Your task to perform on an android device: turn off notifications settings in the gmail app Image 0: 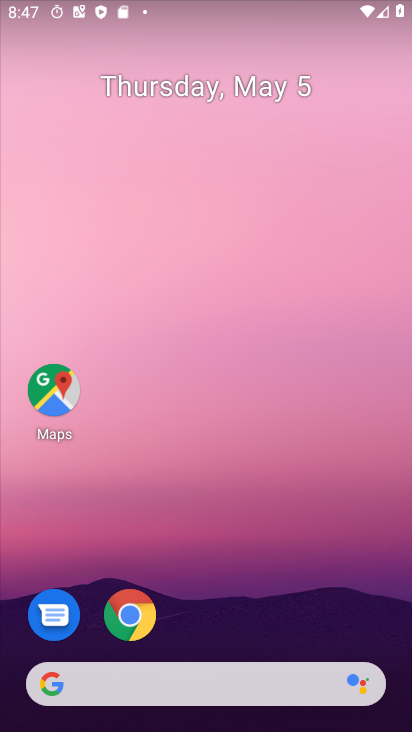
Step 0: drag from (228, 600) to (285, 199)
Your task to perform on an android device: turn off notifications settings in the gmail app Image 1: 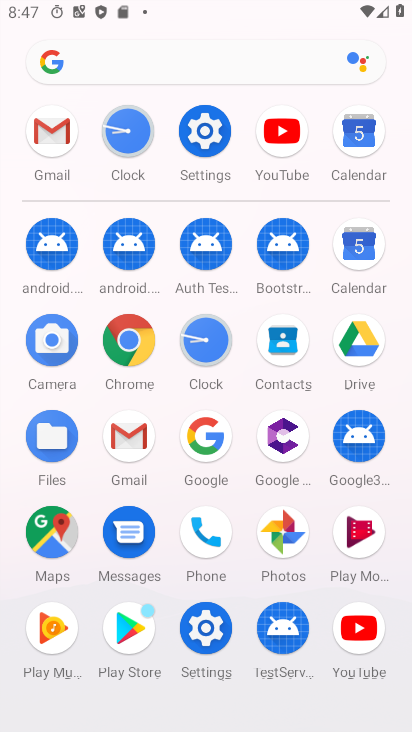
Step 1: click (122, 437)
Your task to perform on an android device: turn off notifications settings in the gmail app Image 2: 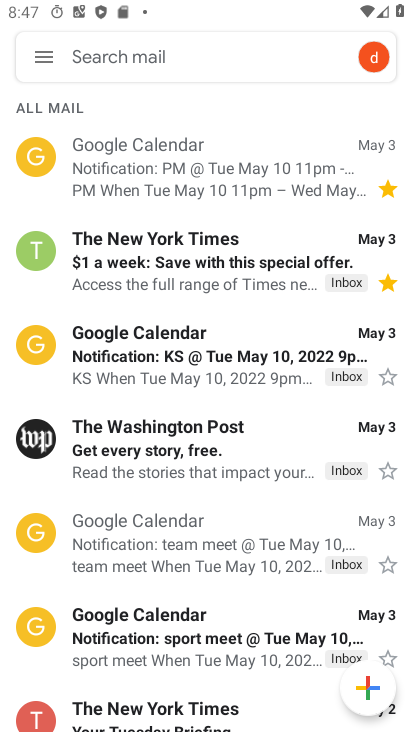
Step 2: click (41, 57)
Your task to perform on an android device: turn off notifications settings in the gmail app Image 3: 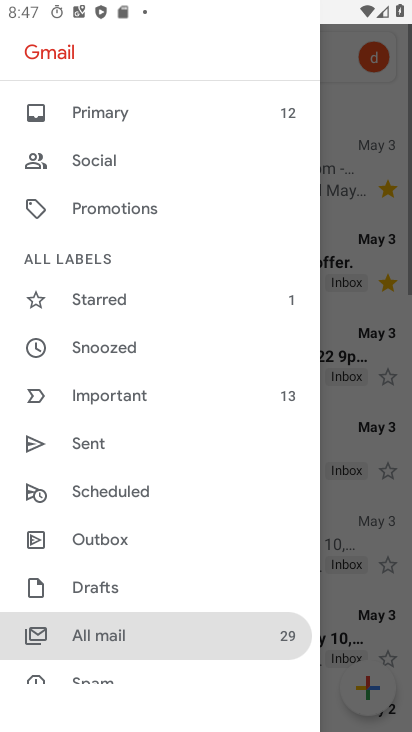
Step 3: drag from (116, 561) to (175, 209)
Your task to perform on an android device: turn off notifications settings in the gmail app Image 4: 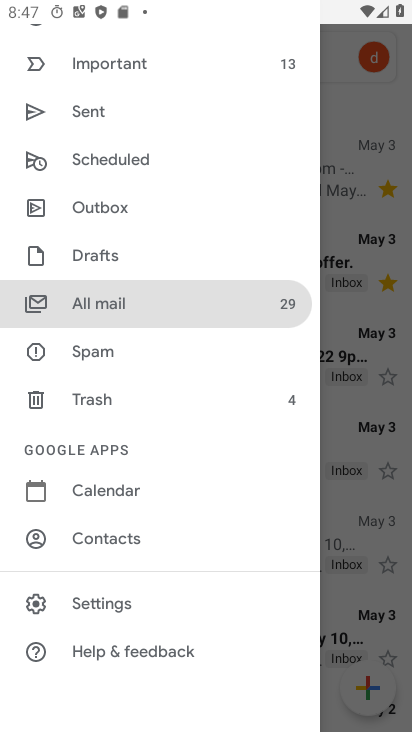
Step 4: click (110, 607)
Your task to perform on an android device: turn off notifications settings in the gmail app Image 5: 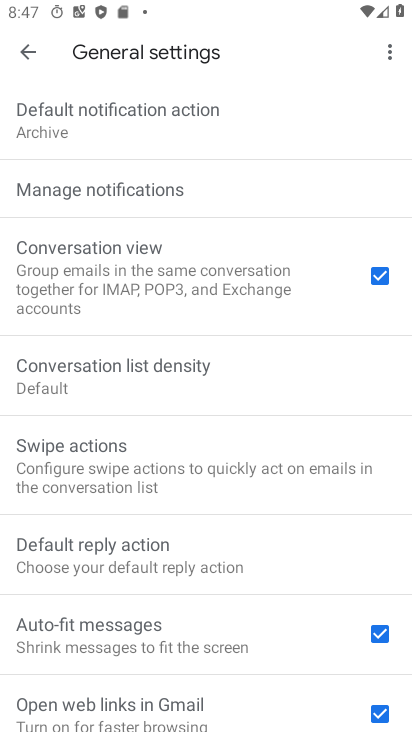
Step 5: click (137, 194)
Your task to perform on an android device: turn off notifications settings in the gmail app Image 6: 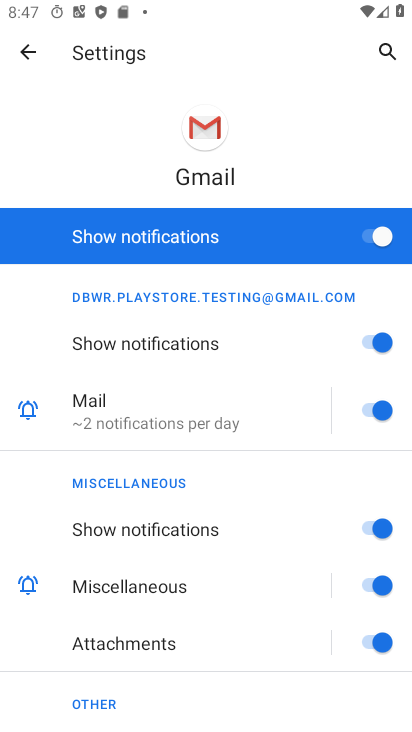
Step 6: click (356, 235)
Your task to perform on an android device: turn off notifications settings in the gmail app Image 7: 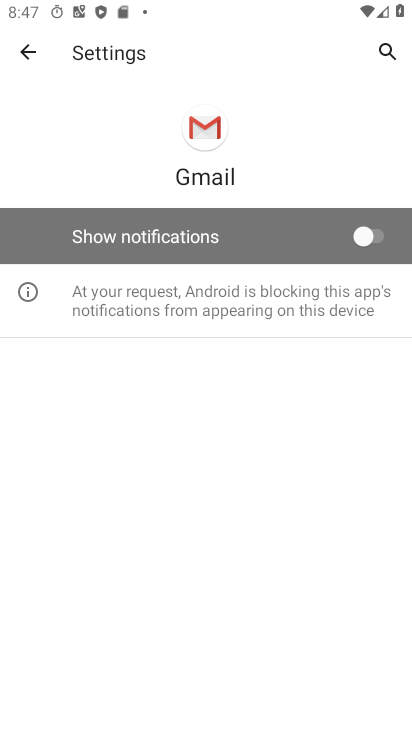
Step 7: task complete